Your task to perform on an android device: Open location settings Image 0: 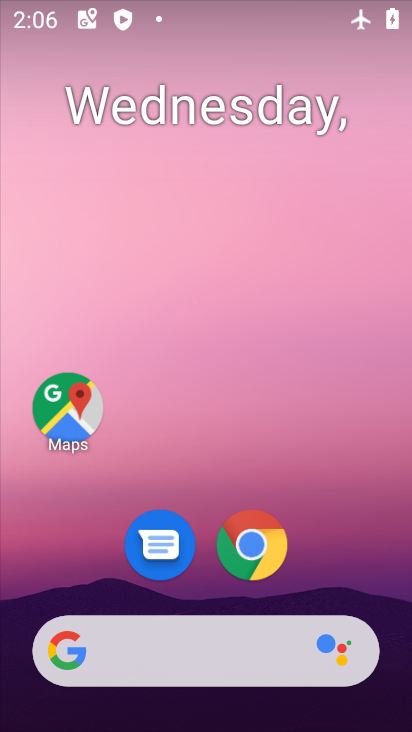
Step 0: drag from (307, 516) to (312, 39)
Your task to perform on an android device: Open location settings Image 1: 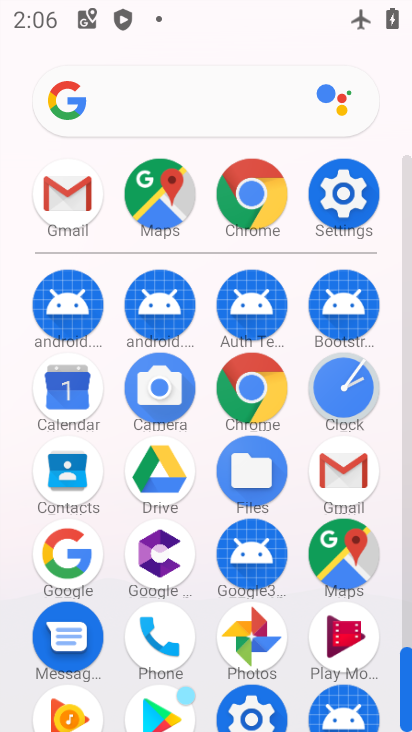
Step 1: click (339, 188)
Your task to perform on an android device: Open location settings Image 2: 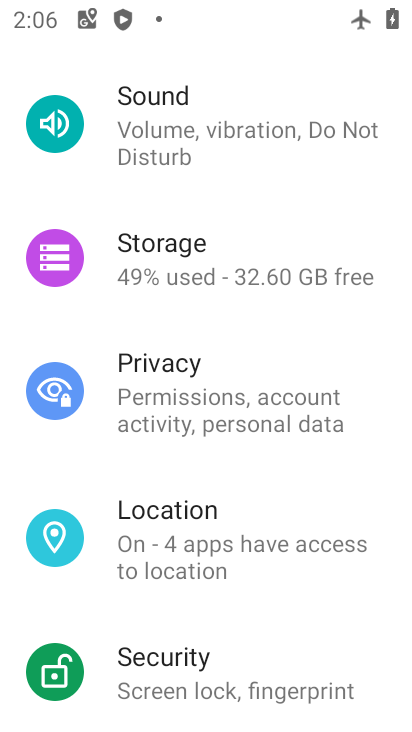
Step 2: drag from (211, 149) to (279, 167)
Your task to perform on an android device: Open location settings Image 3: 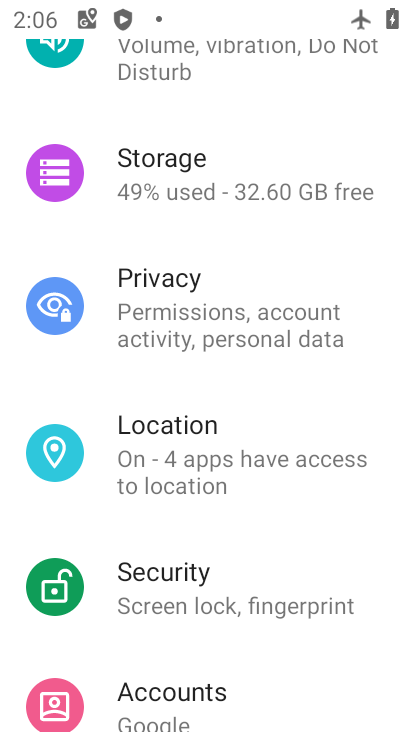
Step 3: click (202, 437)
Your task to perform on an android device: Open location settings Image 4: 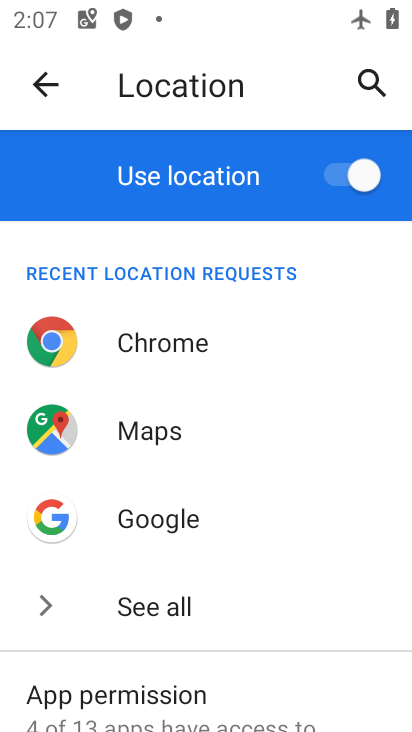
Step 4: task complete